Your task to perform on an android device: Go to internet settings Image 0: 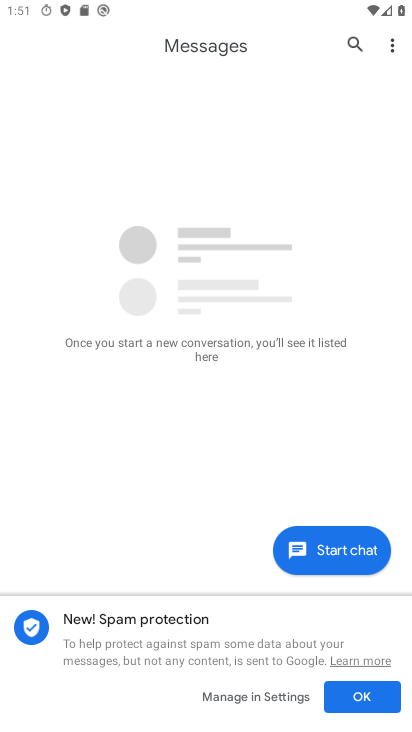
Step 0: press home button
Your task to perform on an android device: Go to internet settings Image 1: 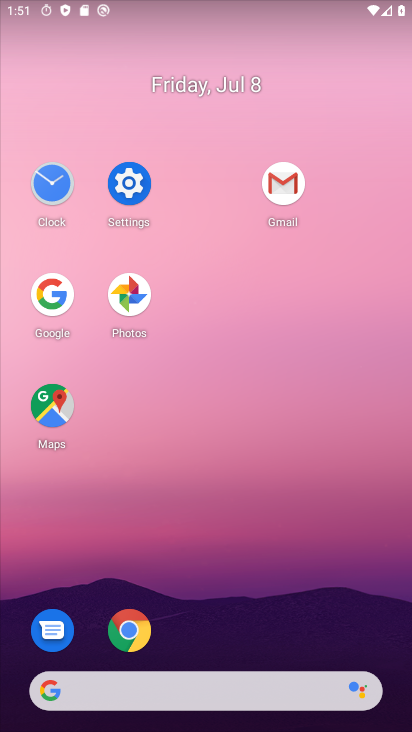
Step 1: click (129, 189)
Your task to perform on an android device: Go to internet settings Image 2: 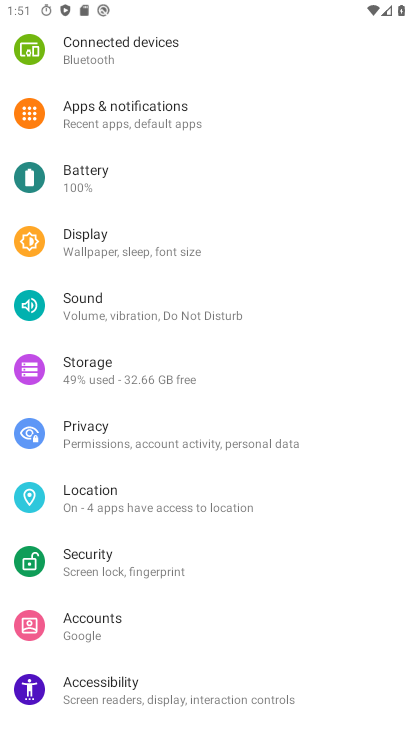
Step 2: drag from (240, 132) to (278, 660)
Your task to perform on an android device: Go to internet settings Image 3: 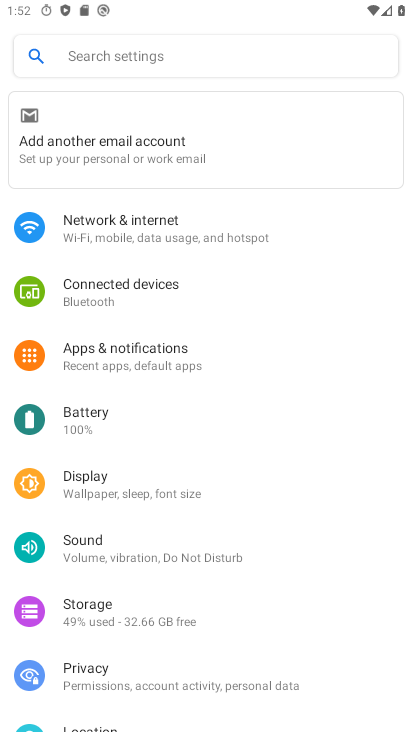
Step 3: click (156, 234)
Your task to perform on an android device: Go to internet settings Image 4: 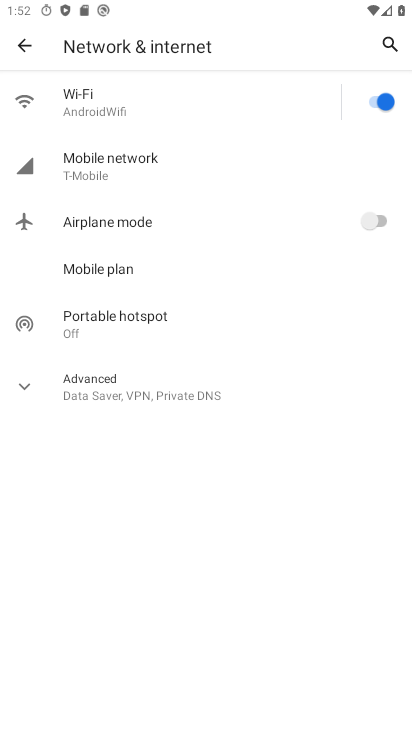
Step 4: task complete